Your task to perform on an android device: What's the weather? Image 0: 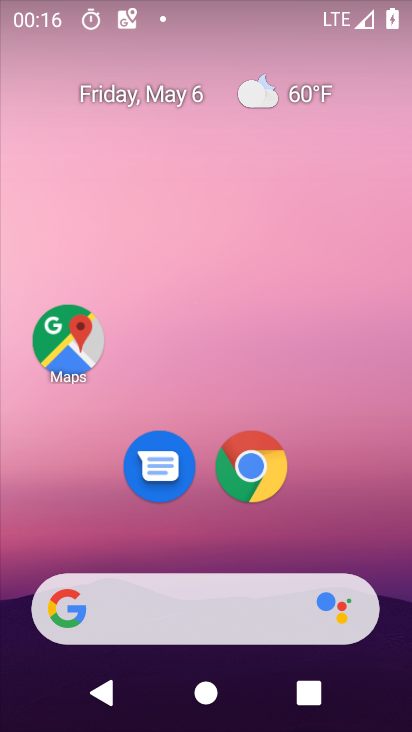
Step 0: drag from (223, 540) to (234, 252)
Your task to perform on an android device: What's the weather? Image 1: 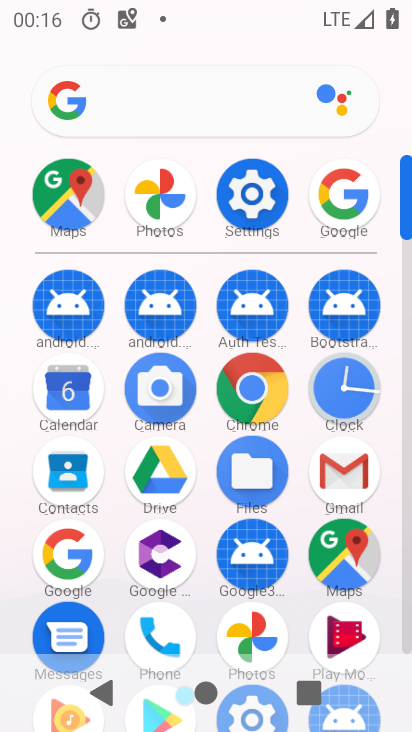
Step 1: click (67, 560)
Your task to perform on an android device: What's the weather? Image 2: 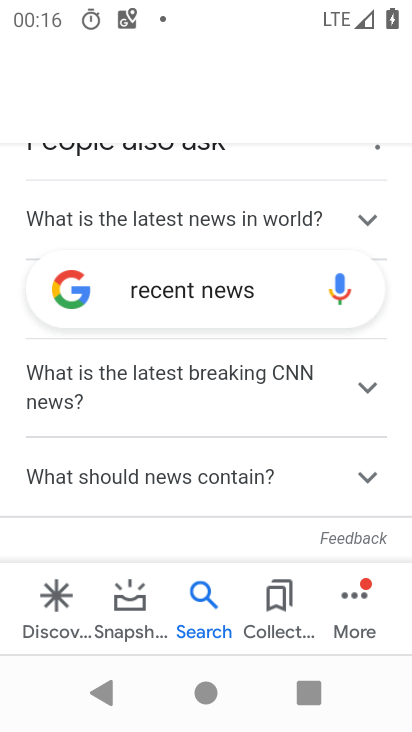
Step 2: click (273, 298)
Your task to perform on an android device: What's the weather? Image 3: 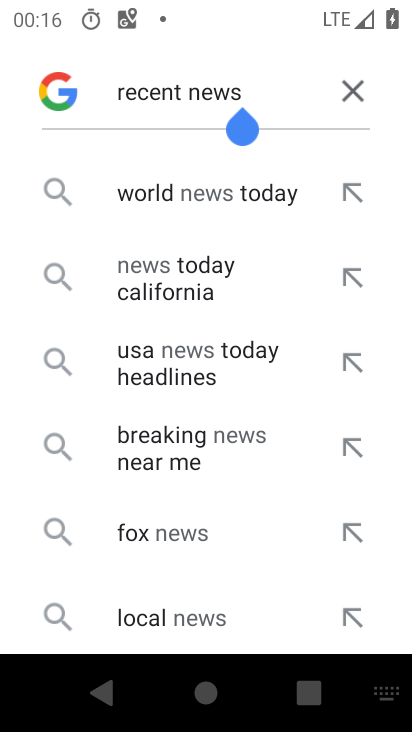
Step 3: click (360, 91)
Your task to perform on an android device: What's the weather? Image 4: 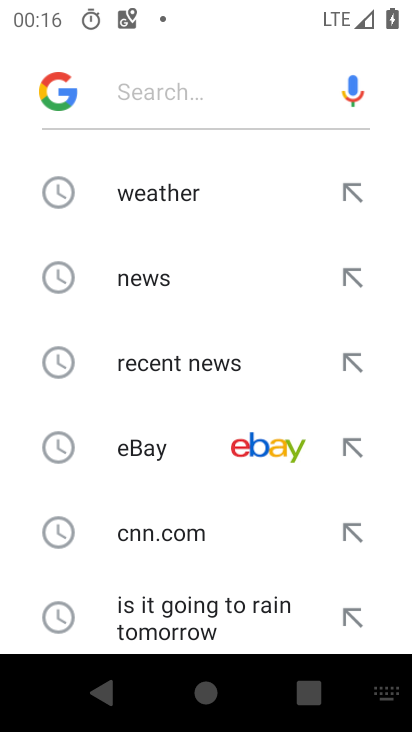
Step 4: click (163, 199)
Your task to perform on an android device: What's the weather? Image 5: 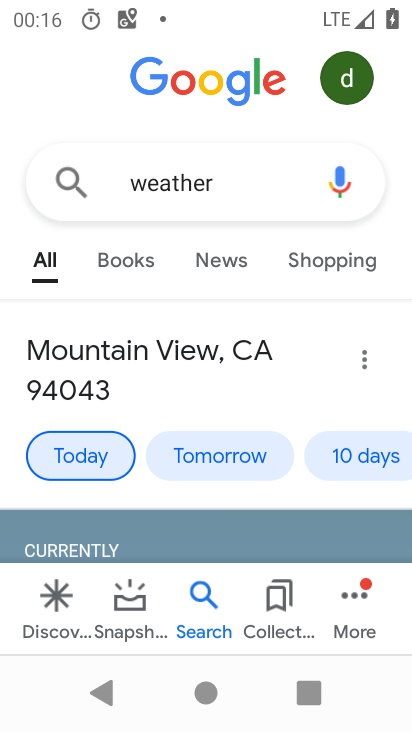
Step 5: task complete